Your task to perform on an android device: delete a single message in the gmail app Image 0: 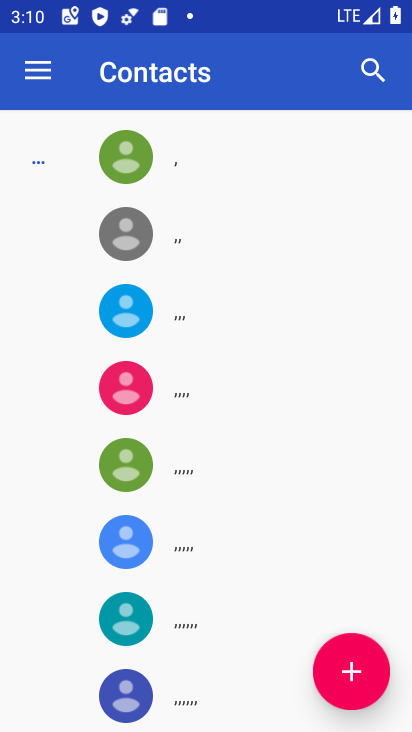
Step 0: press home button
Your task to perform on an android device: delete a single message in the gmail app Image 1: 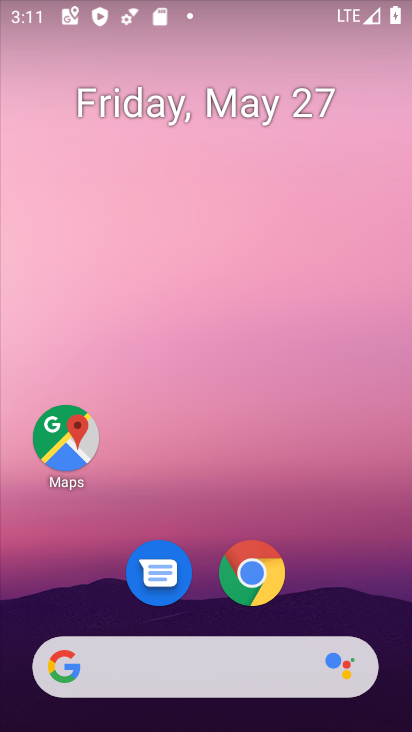
Step 1: drag from (181, 462) to (224, 25)
Your task to perform on an android device: delete a single message in the gmail app Image 2: 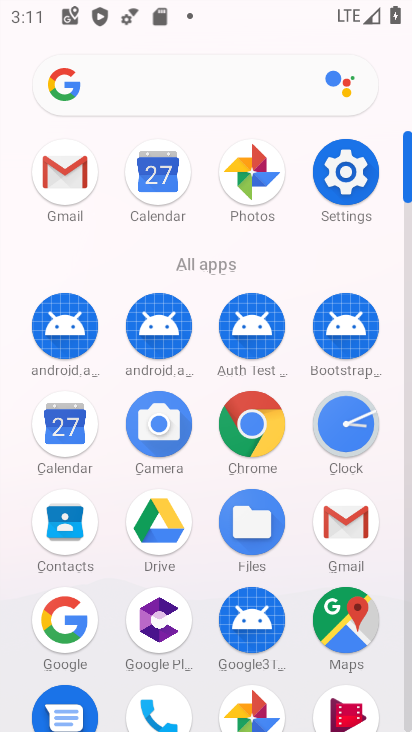
Step 2: click (79, 178)
Your task to perform on an android device: delete a single message in the gmail app Image 3: 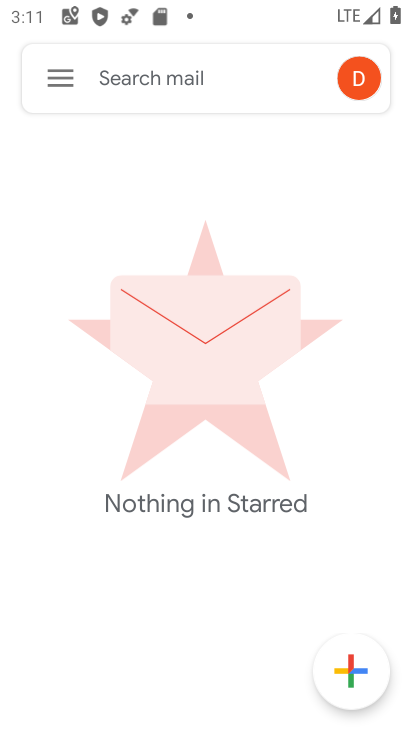
Step 3: task complete